Your task to perform on an android device: Search for vegetarian restaurants on Maps Image 0: 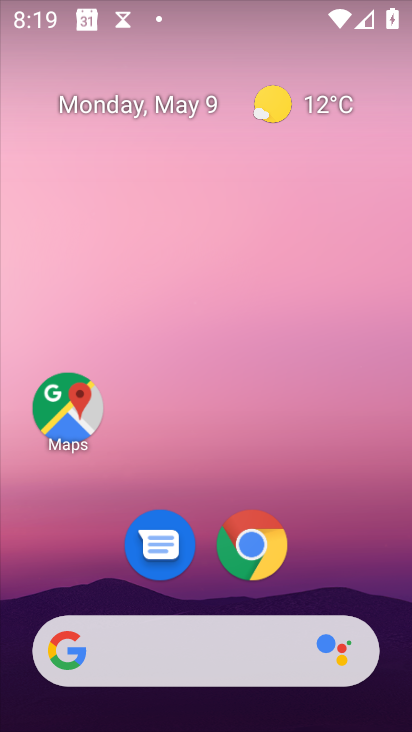
Step 0: drag from (224, 723) to (222, 264)
Your task to perform on an android device: Search for vegetarian restaurants on Maps Image 1: 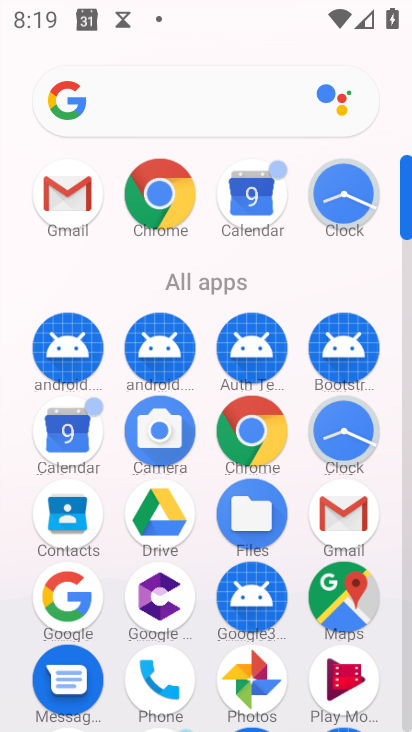
Step 1: click (344, 595)
Your task to perform on an android device: Search for vegetarian restaurants on Maps Image 2: 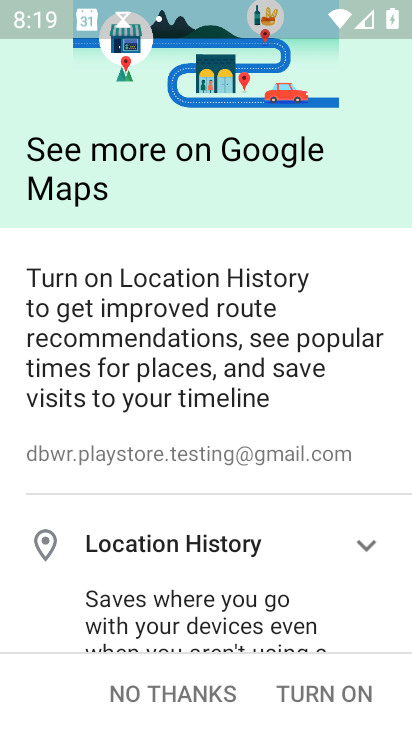
Step 2: drag from (200, 621) to (195, 331)
Your task to perform on an android device: Search for vegetarian restaurants on Maps Image 3: 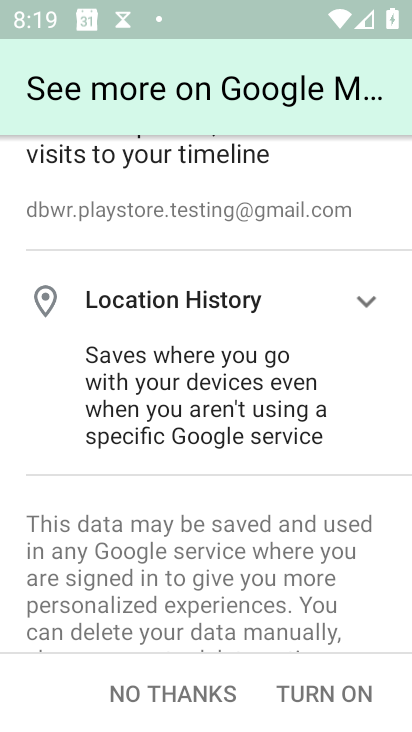
Step 3: click (197, 694)
Your task to perform on an android device: Search for vegetarian restaurants on Maps Image 4: 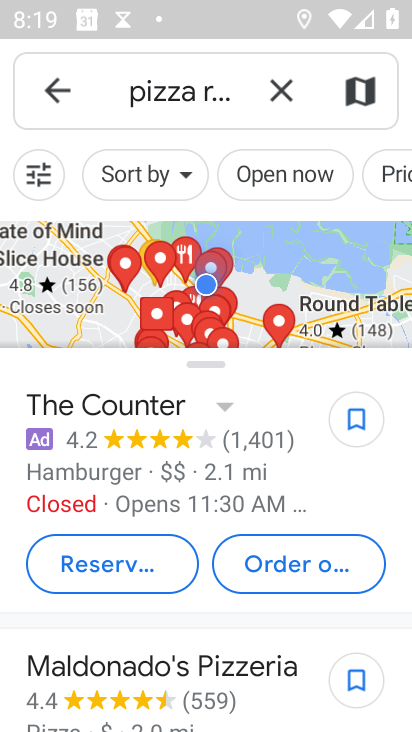
Step 4: click (277, 86)
Your task to perform on an android device: Search for vegetarian restaurants on Maps Image 5: 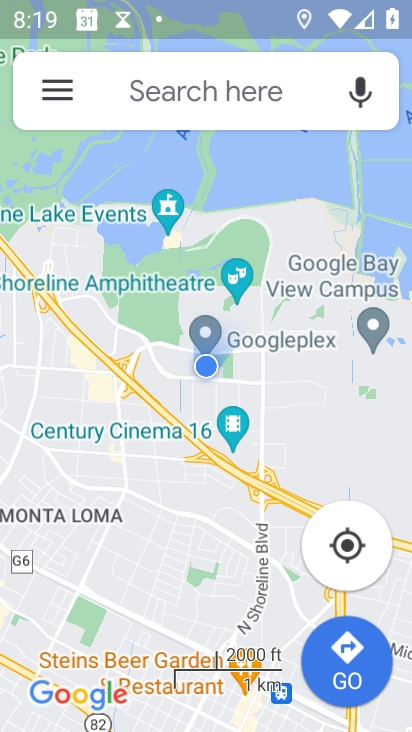
Step 5: click (182, 89)
Your task to perform on an android device: Search for vegetarian restaurants on Maps Image 6: 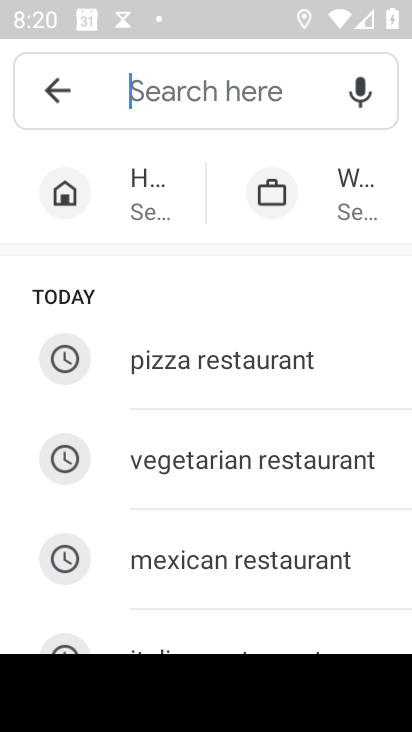
Step 6: type "vegetarian restaurants"
Your task to perform on an android device: Search for vegetarian restaurants on Maps Image 7: 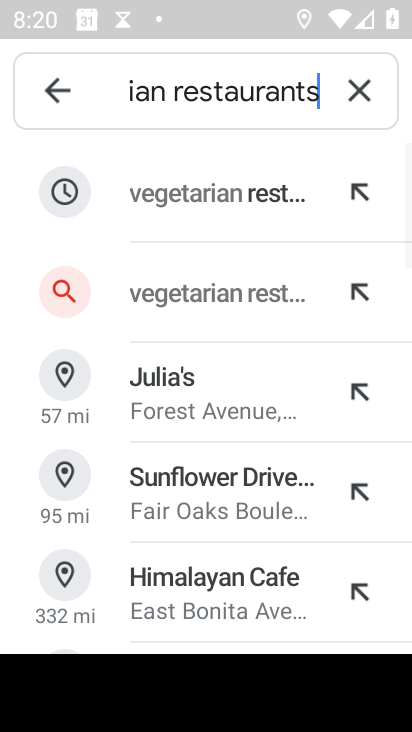
Step 7: click (173, 196)
Your task to perform on an android device: Search for vegetarian restaurants on Maps Image 8: 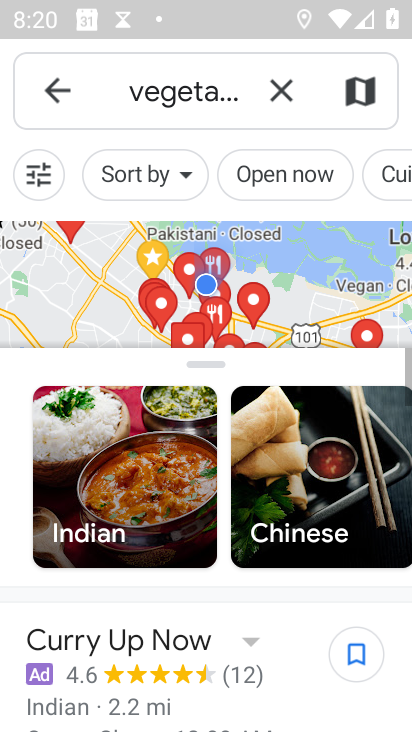
Step 8: task complete